Your task to perform on an android device: Open settings Image 0: 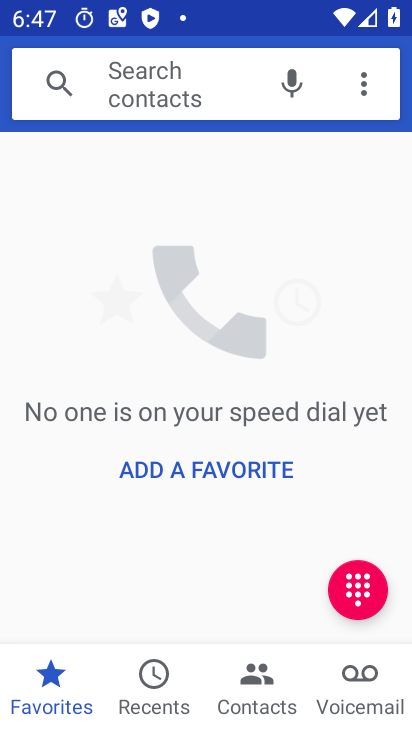
Step 0: press home button
Your task to perform on an android device: Open settings Image 1: 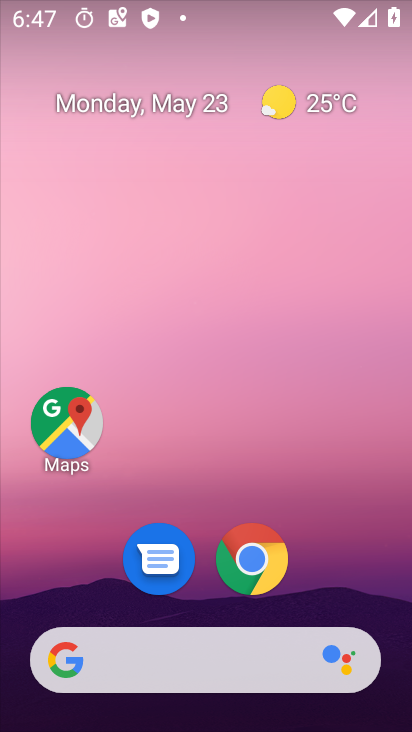
Step 1: drag from (401, 625) to (376, 48)
Your task to perform on an android device: Open settings Image 2: 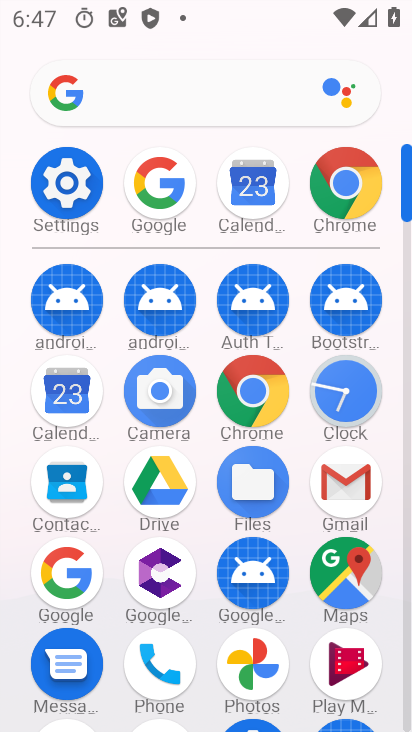
Step 2: click (74, 208)
Your task to perform on an android device: Open settings Image 3: 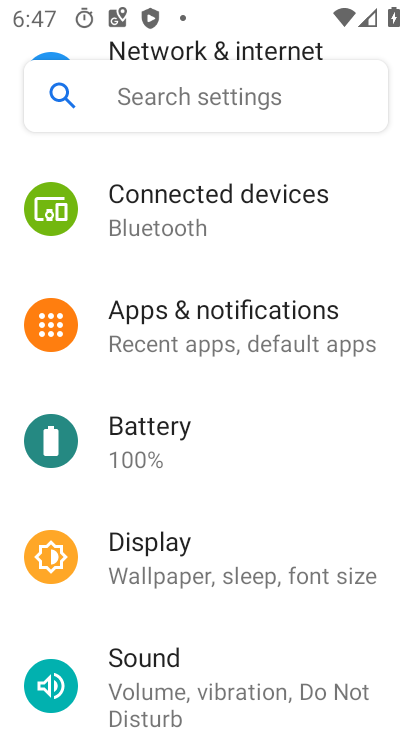
Step 3: task complete